Your task to perform on an android device: open app "DuckDuckGo Privacy Browser" (install if not already installed), go to login, and select forgot password Image 0: 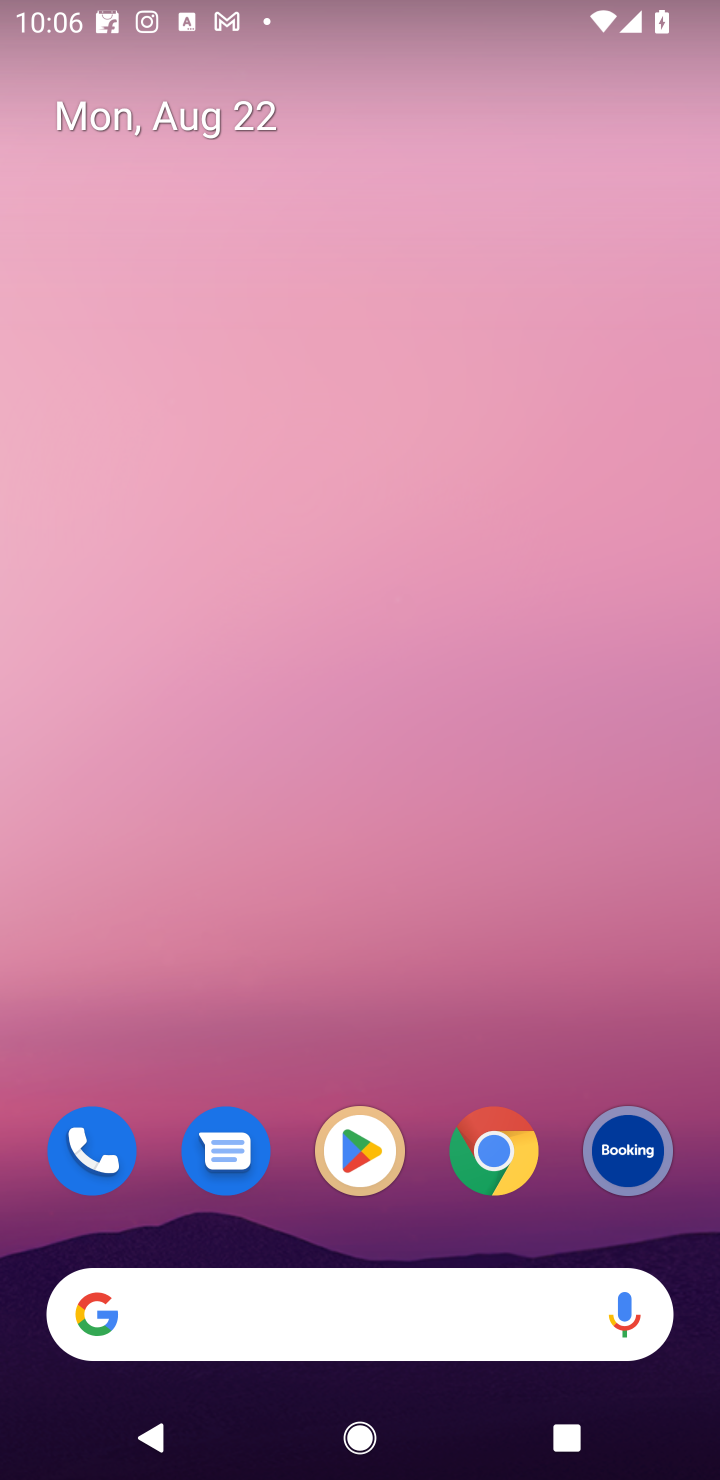
Step 0: press home button
Your task to perform on an android device: open app "DuckDuckGo Privacy Browser" (install if not already installed), go to login, and select forgot password Image 1: 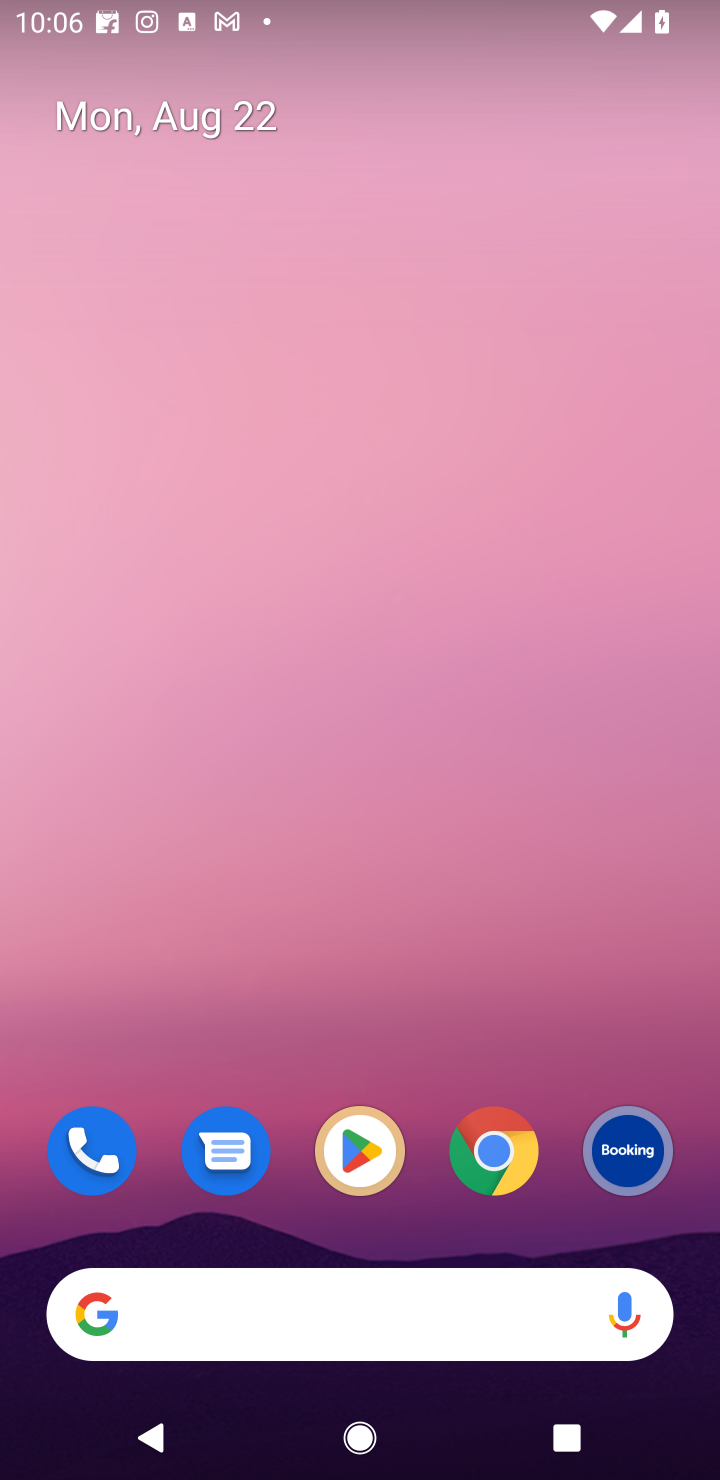
Step 1: click (347, 1150)
Your task to perform on an android device: open app "DuckDuckGo Privacy Browser" (install if not already installed), go to login, and select forgot password Image 2: 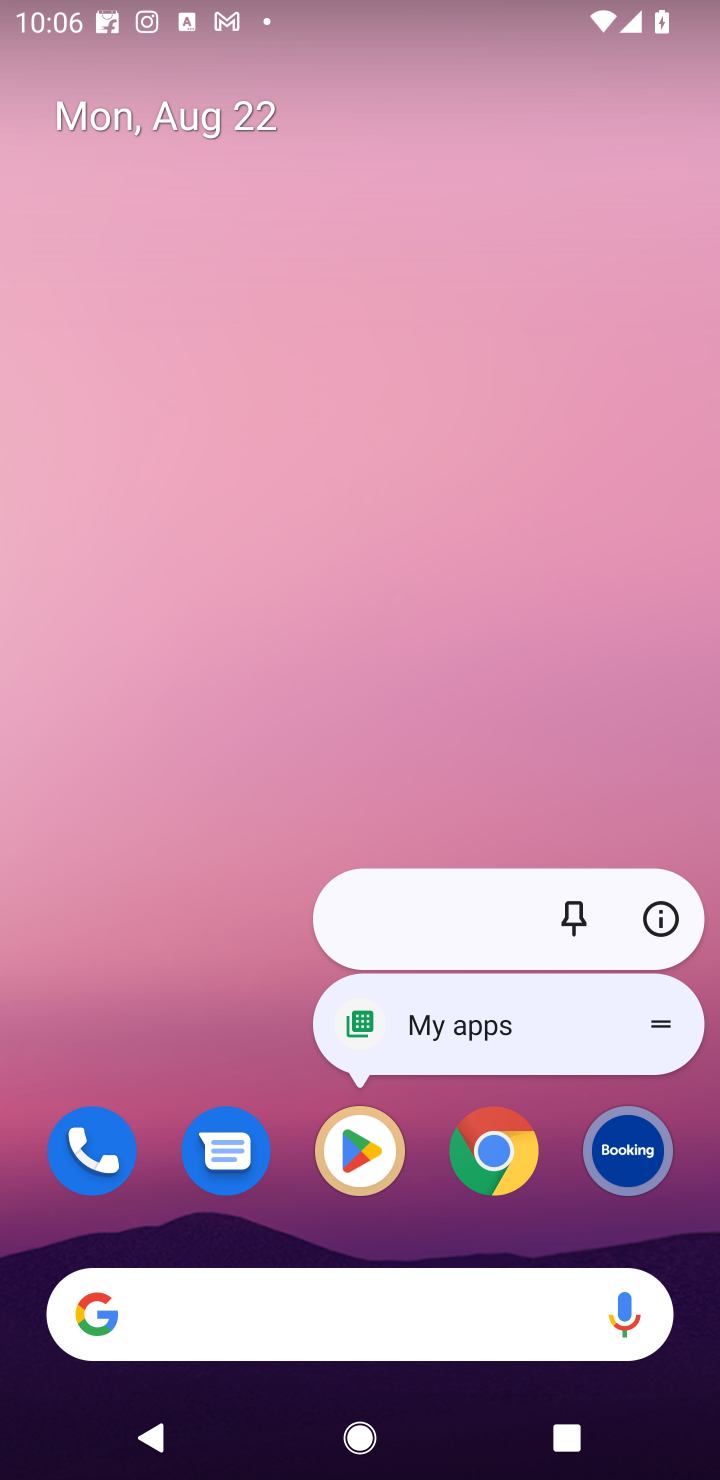
Step 2: click (347, 1154)
Your task to perform on an android device: open app "DuckDuckGo Privacy Browser" (install if not already installed), go to login, and select forgot password Image 3: 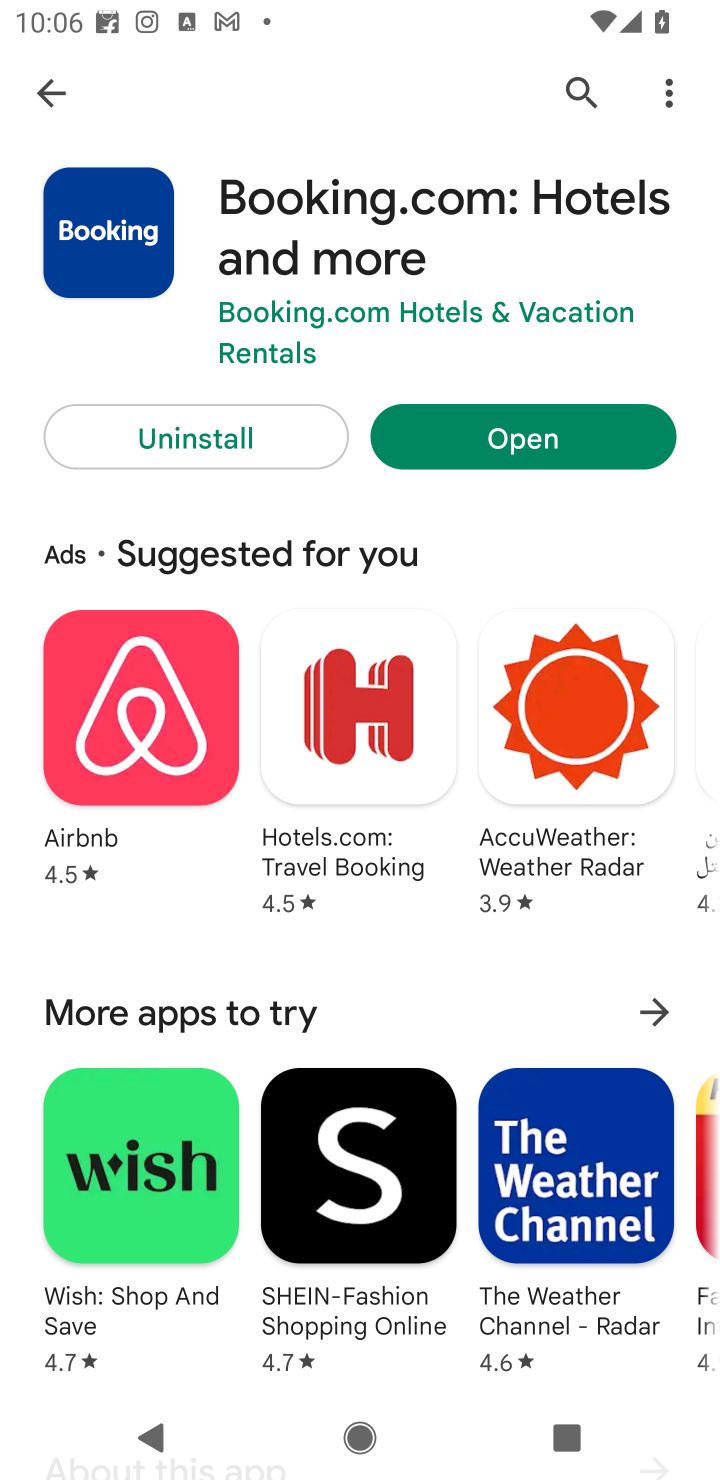
Step 3: click (583, 86)
Your task to perform on an android device: open app "DuckDuckGo Privacy Browser" (install if not already installed), go to login, and select forgot password Image 4: 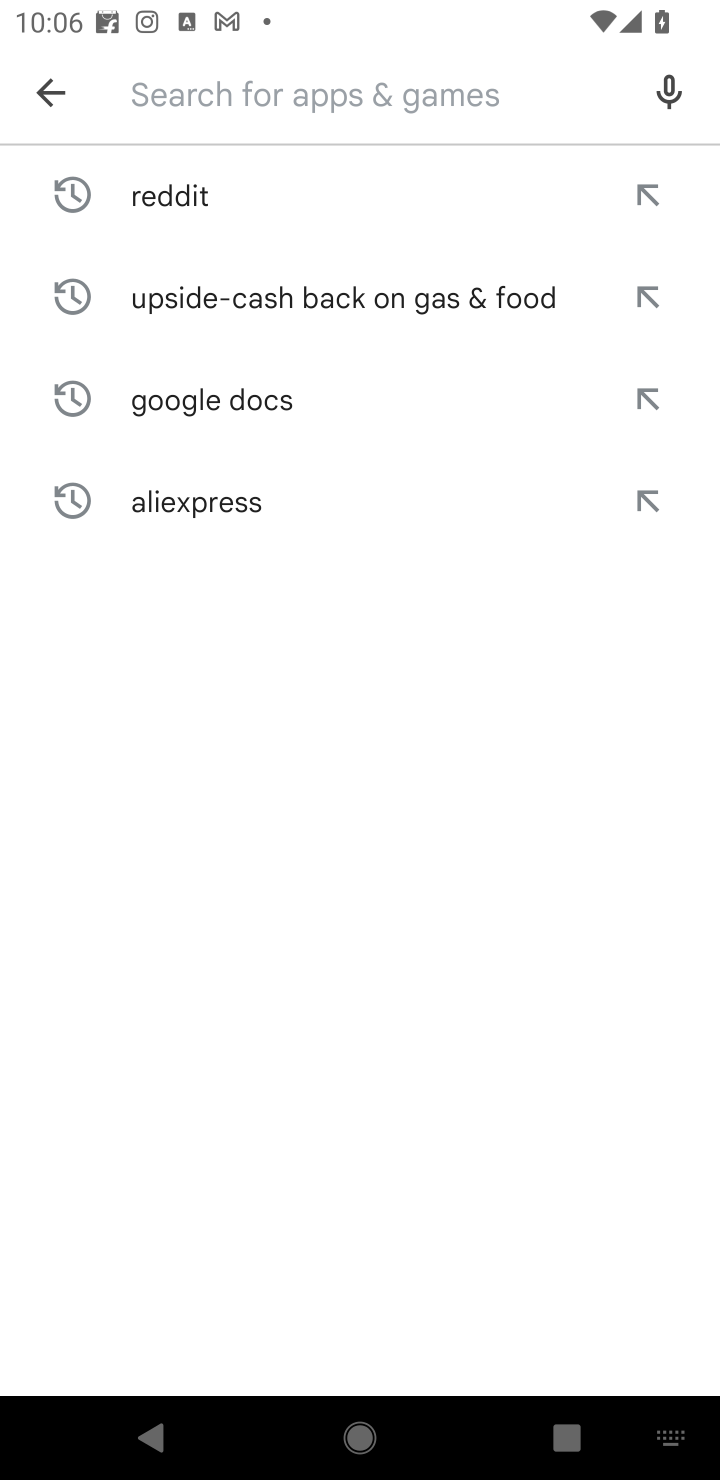
Step 4: type "DuckDuckGo Privacy Browser"
Your task to perform on an android device: open app "DuckDuckGo Privacy Browser" (install if not already installed), go to login, and select forgot password Image 5: 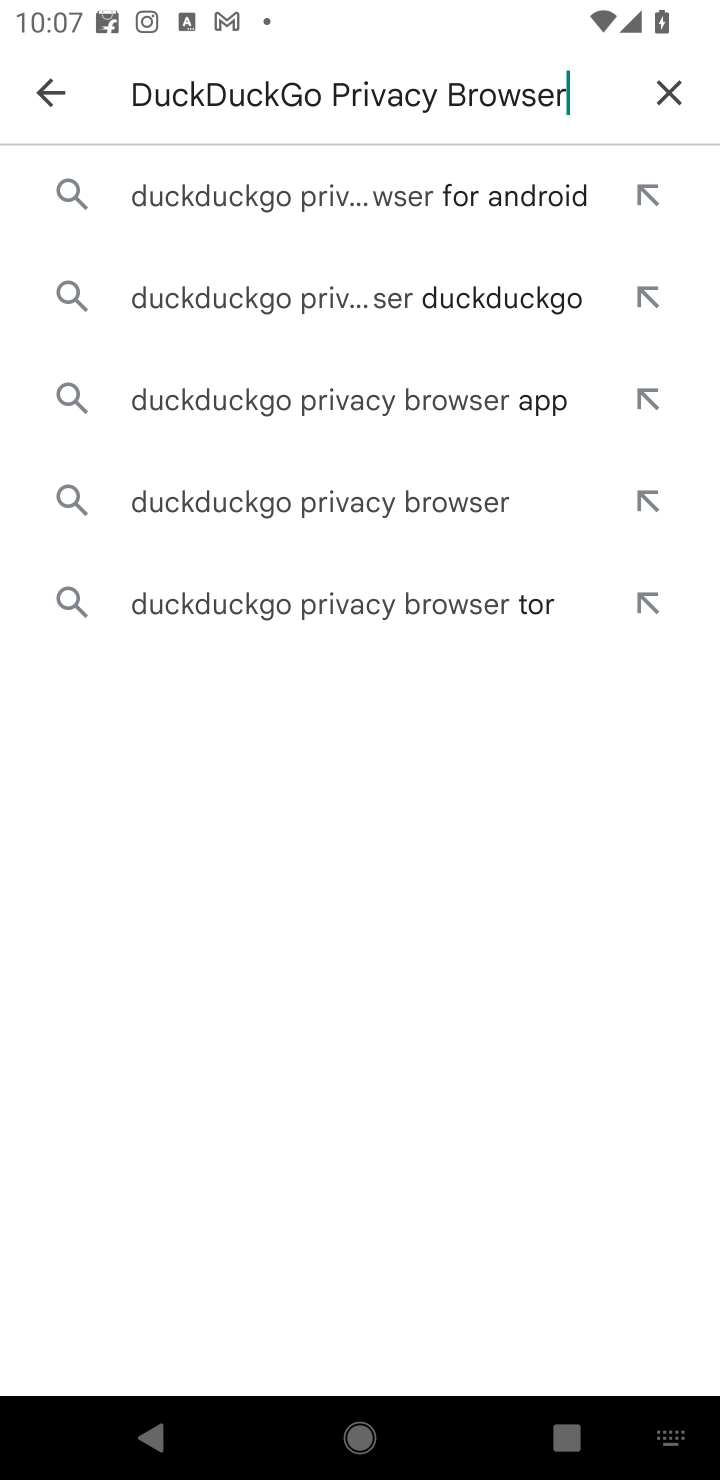
Step 5: click (334, 194)
Your task to perform on an android device: open app "DuckDuckGo Privacy Browser" (install if not already installed), go to login, and select forgot password Image 6: 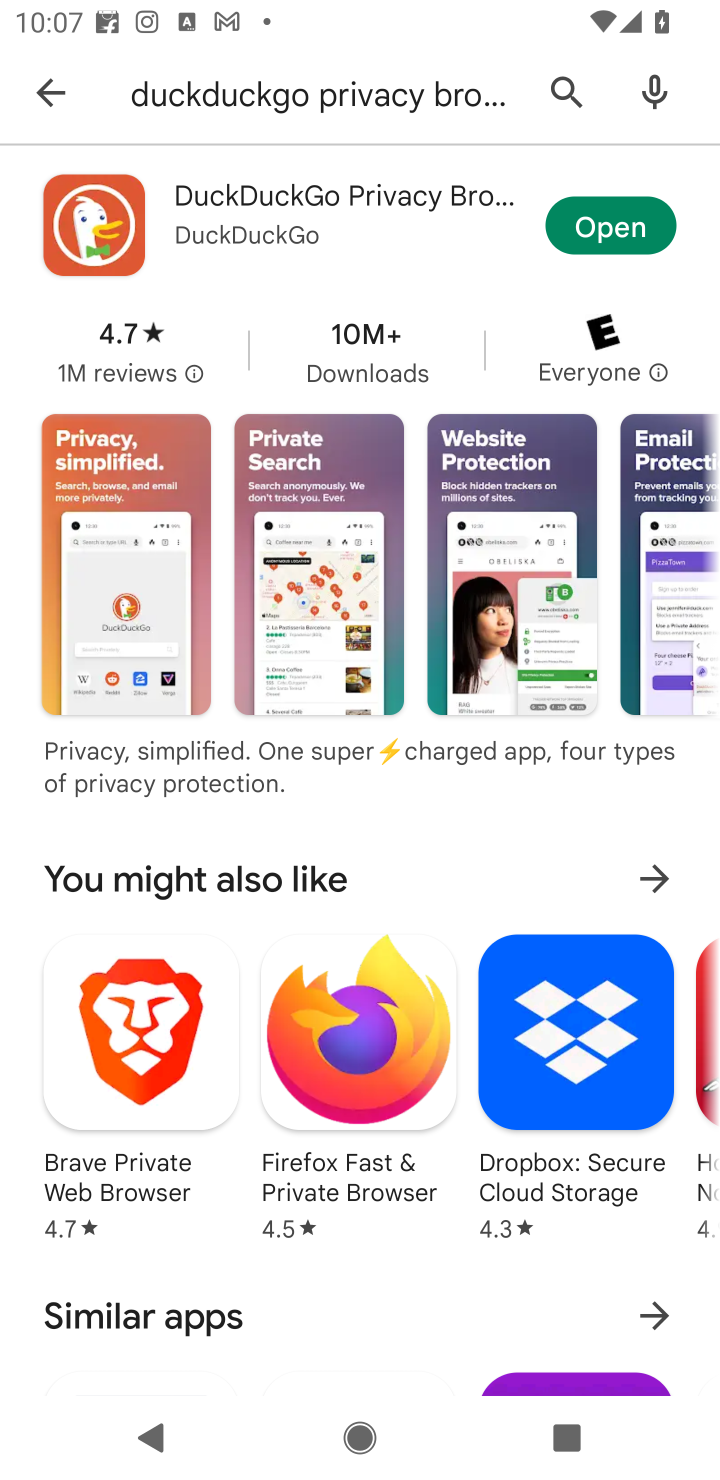
Step 6: click (630, 226)
Your task to perform on an android device: open app "DuckDuckGo Privacy Browser" (install if not already installed), go to login, and select forgot password Image 7: 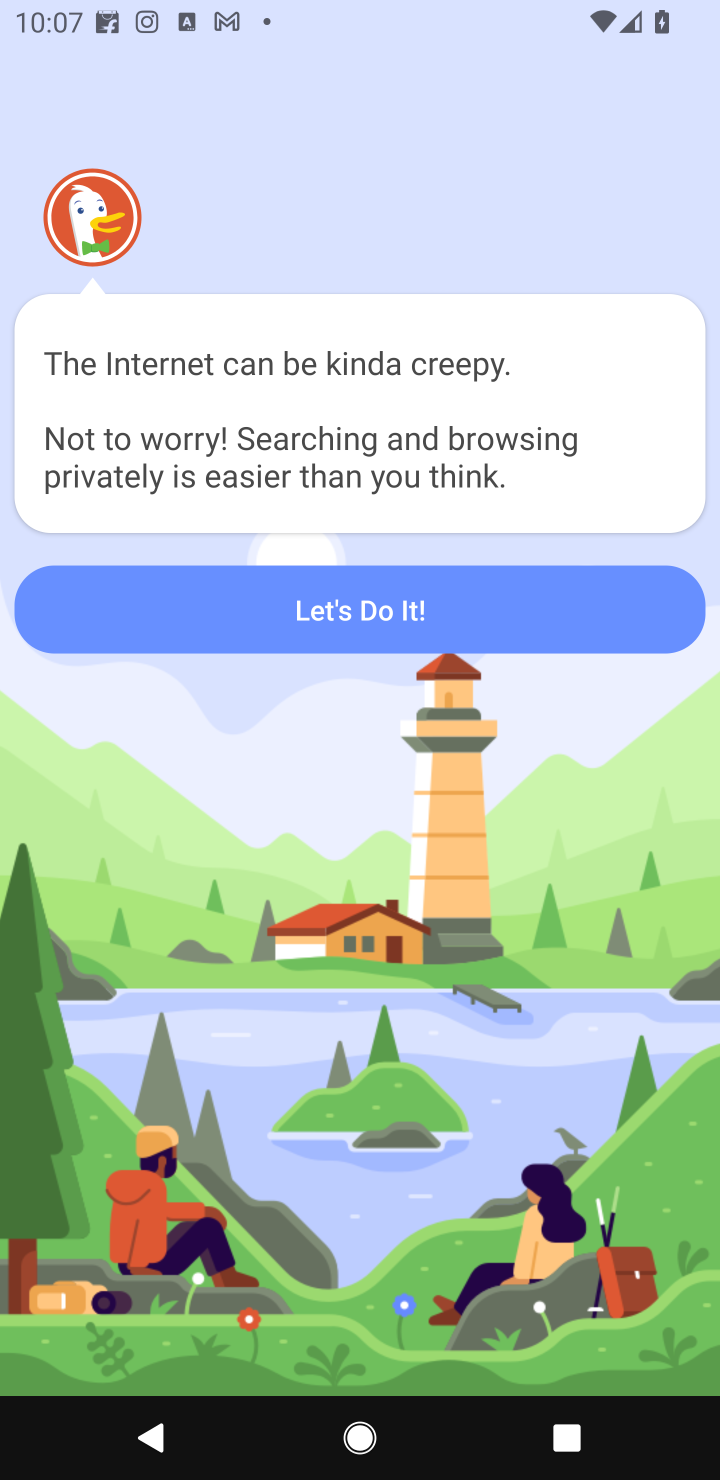
Step 7: task complete